Your task to perform on an android device: What's the weather going to be tomorrow? Image 0: 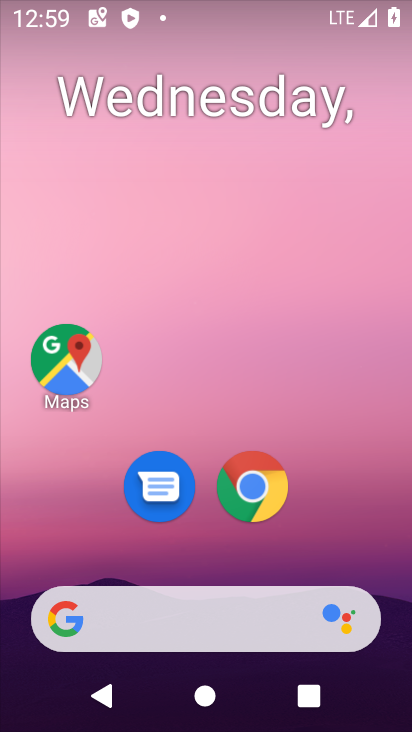
Step 0: click (257, 605)
Your task to perform on an android device: What's the weather going to be tomorrow? Image 1: 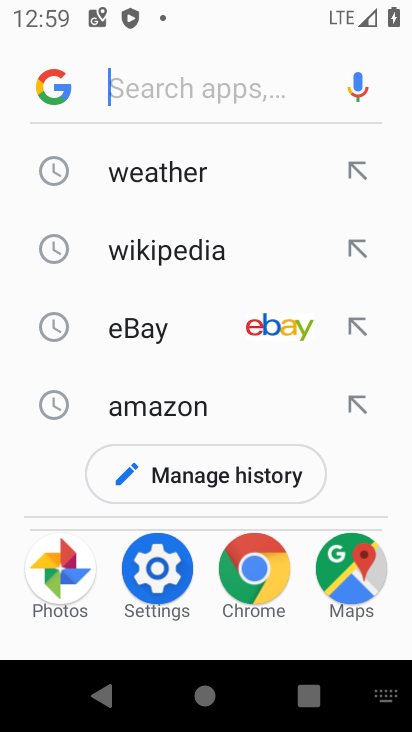
Step 1: click (174, 175)
Your task to perform on an android device: What's the weather going to be tomorrow? Image 2: 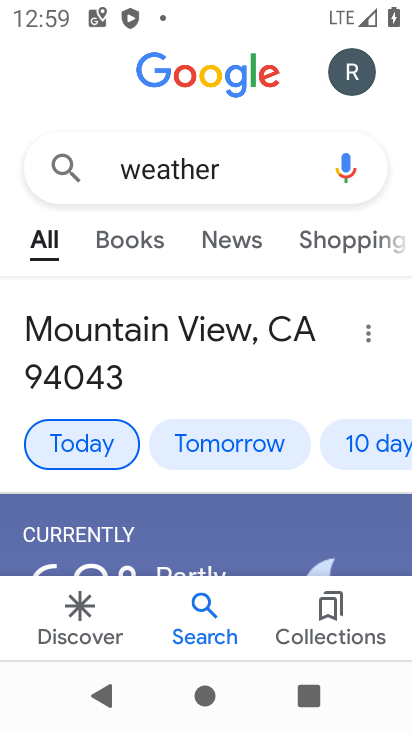
Step 2: drag from (314, 510) to (287, 151)
Your task to perform on an android device: What's the weather going to be tomorrow? Image 3: 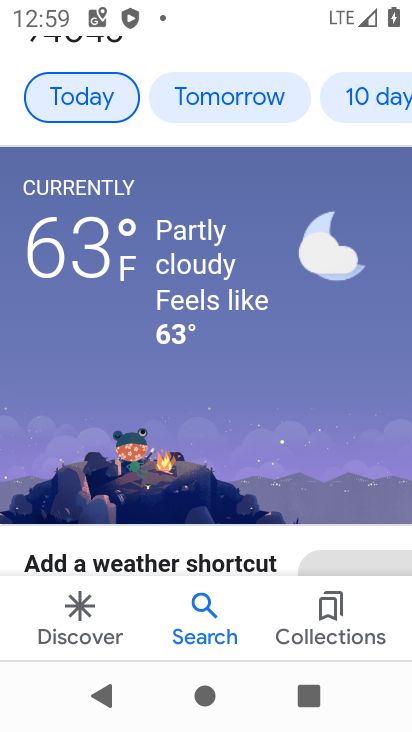
Step 3: click (237, 103)
Your task to perform on an android device: What's the weather going to be tomorrow? Image 4: 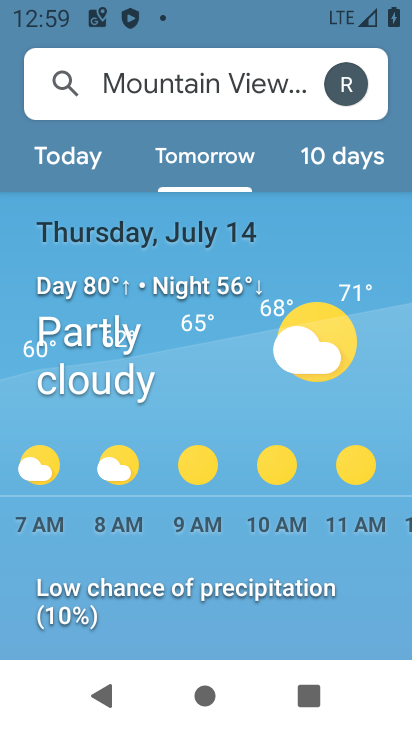
Step 4: task complete